Your task to perform on an android device: show emergency info Image 0: 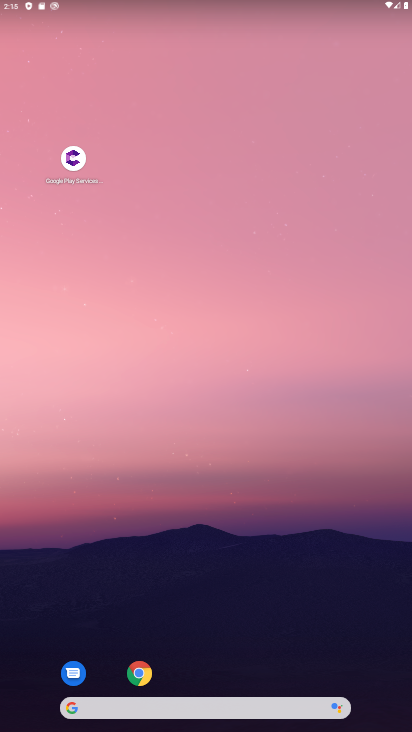
Step 0: drag from (238, 672) to (127, 95)
Your task to perform on an android device: show emergency info Image 1: 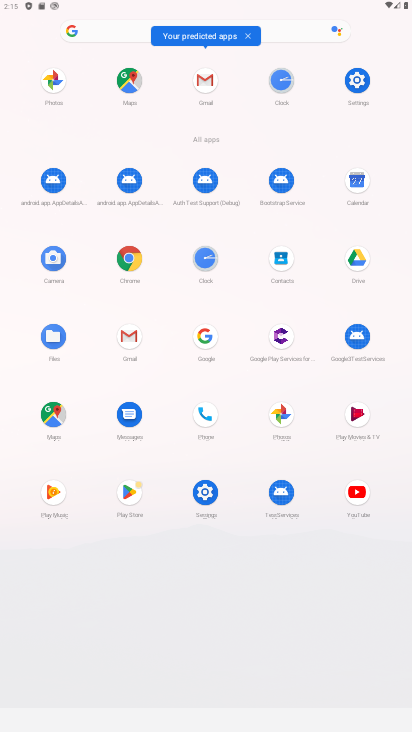
Step 1: click (353, 85)
Your task to perform on an android device: show emergency info Image 2: 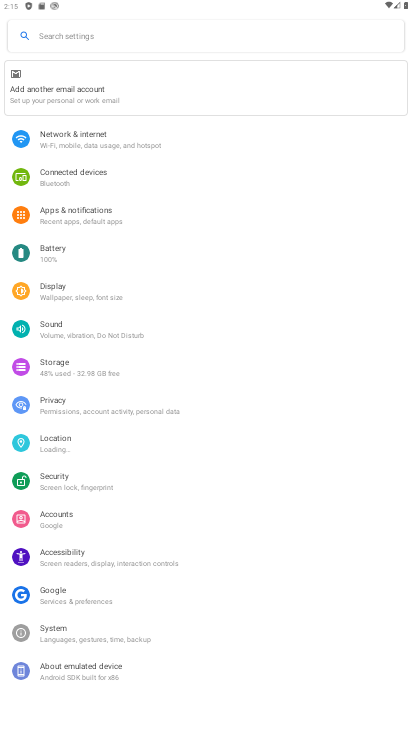
Step 2: click (70, 670)
Your task to perform on an android device: show emergency info Image 3: 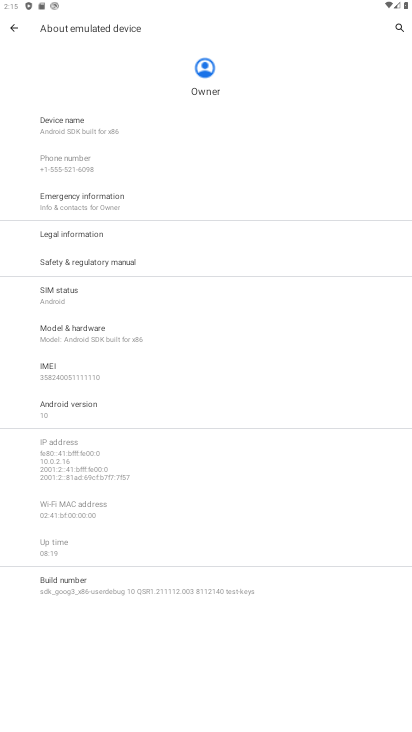
Step 3: click (68, 204)
Your task to perform on an android device: show emergency info Image 4: 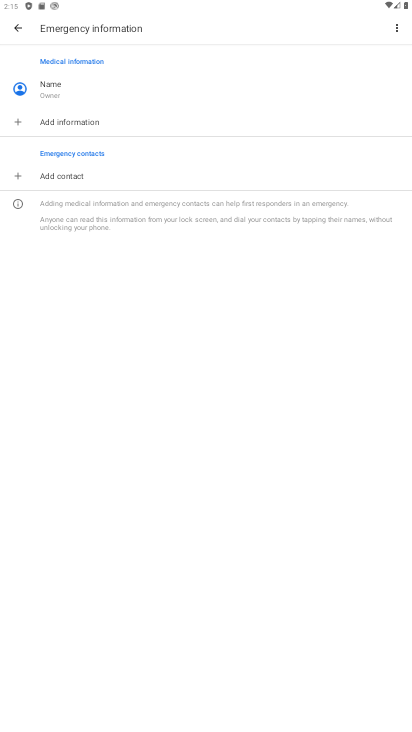
Step 4: task complete